Your task to perform on an android device: Open settings on Google Maps Image 0: 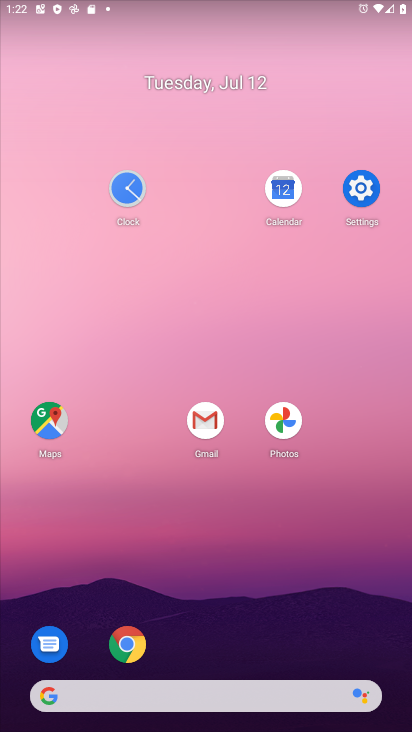
Step 0: click (48, 423)
Your task to perform on an android device: Open settings on Google Maps Image 1: 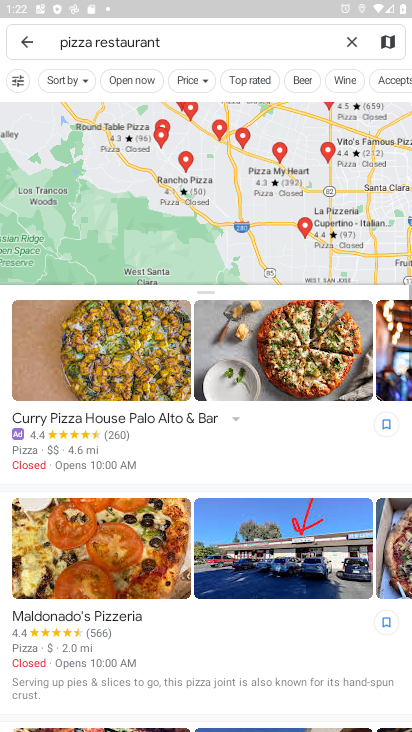
Step 1: click (29, 33)
Your task to perform on an android device: Open settings on Google Maps Image 2: 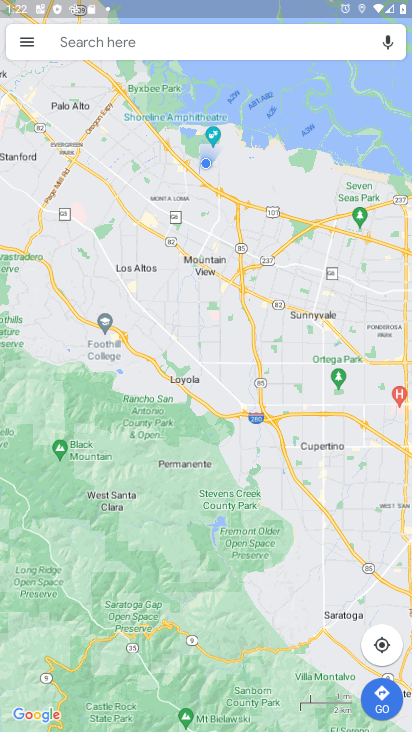
Step 2: click (32, 35)
Your task to perform on an android device: Open settings on Google Maps Image 3: 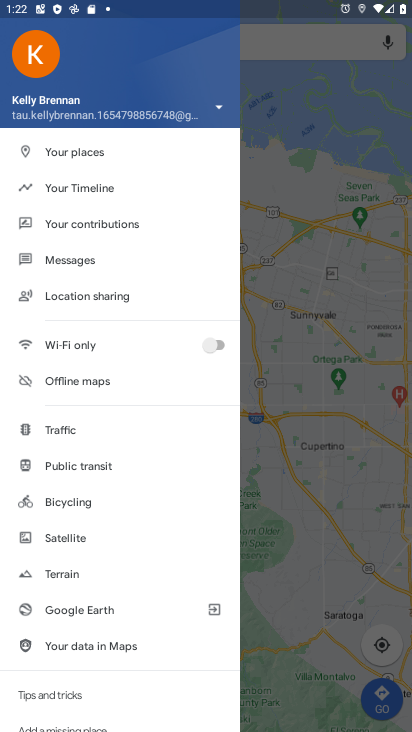
Step 3: drag from (114, 581) to (144, 342)
Your task to perform on an android device: Open settings on Google Maps Image 4: 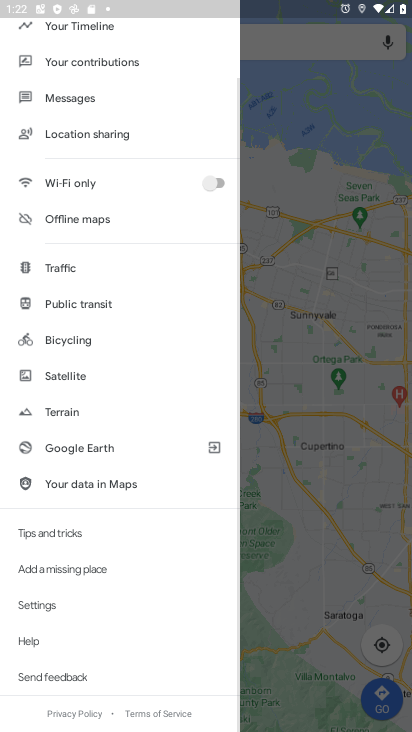
Step 4: click (63, 599)
Your task to perform on an android device: Open settings on Google Maps Image 5: 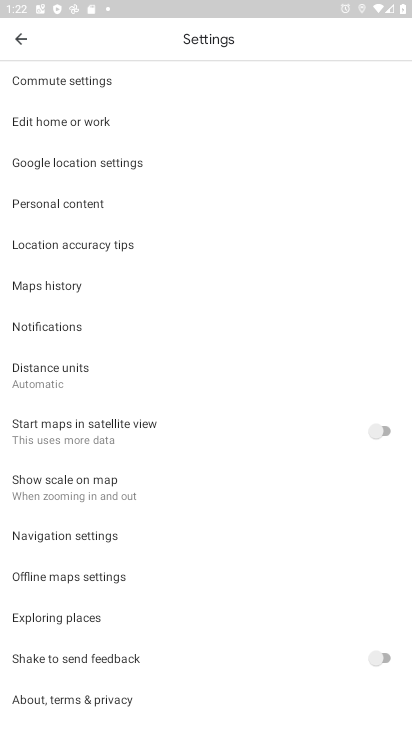
Step 5: task complete